Your task to perform on an android device: show emergency info Image 0: 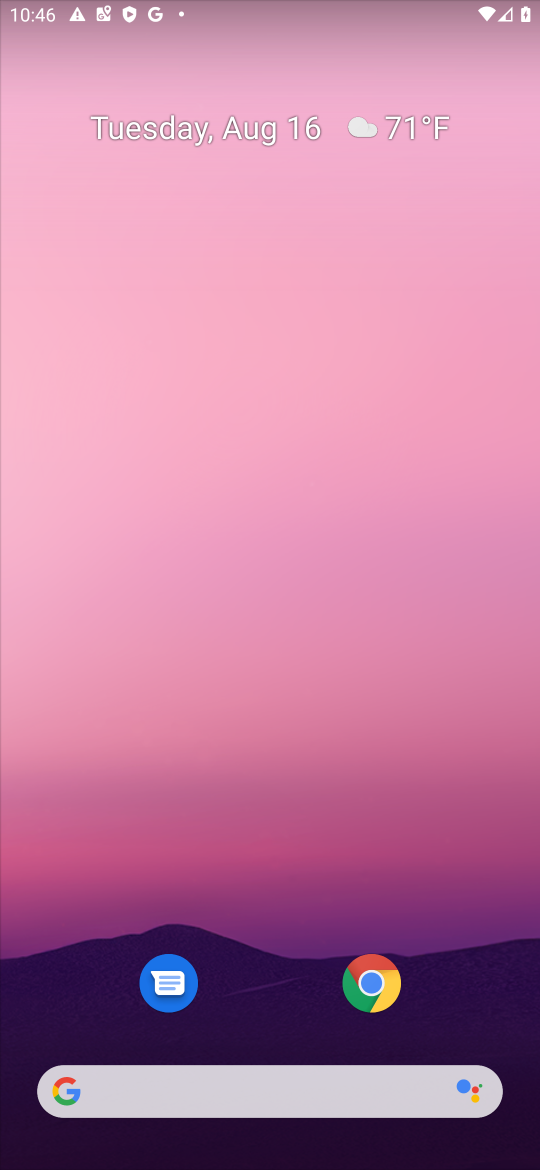
Step 0: drag from (303, 1080) to (359, 178)
Your task to perform on an android device: show emergency info Image 1: 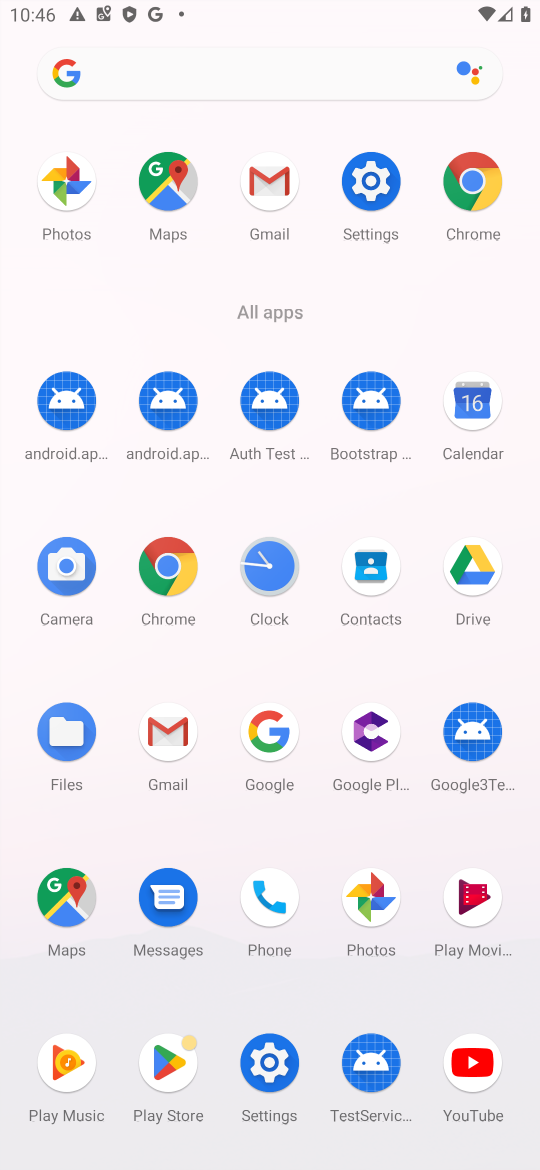
Step 1: click (265, 1070)
Your task to perform on an android device: show emergency info Image 2: 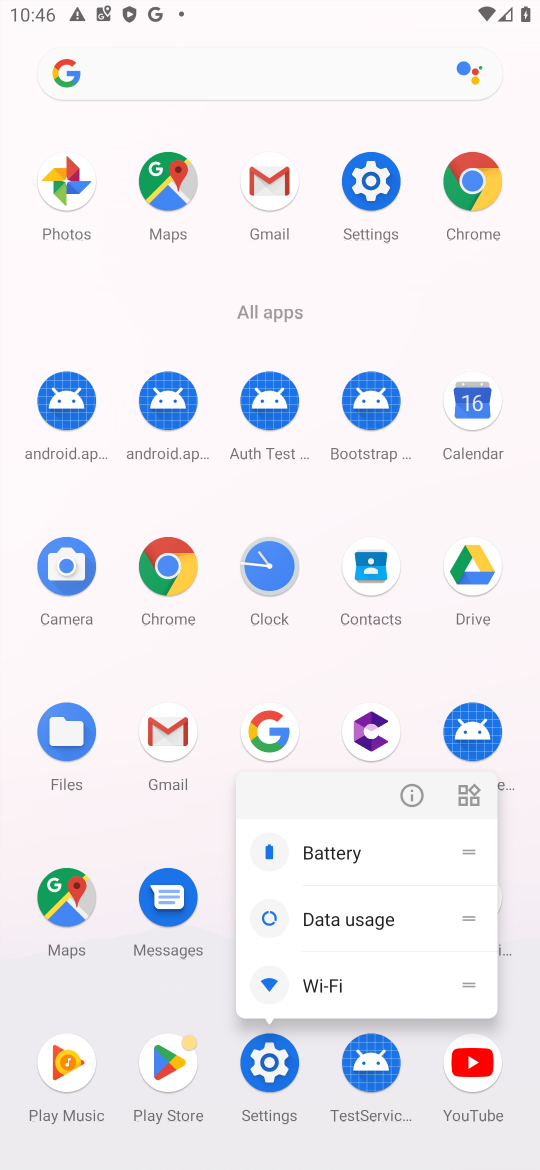
Step 2: click (280, 1065)
Your task to perform on an android device: show emergency info Image 3: 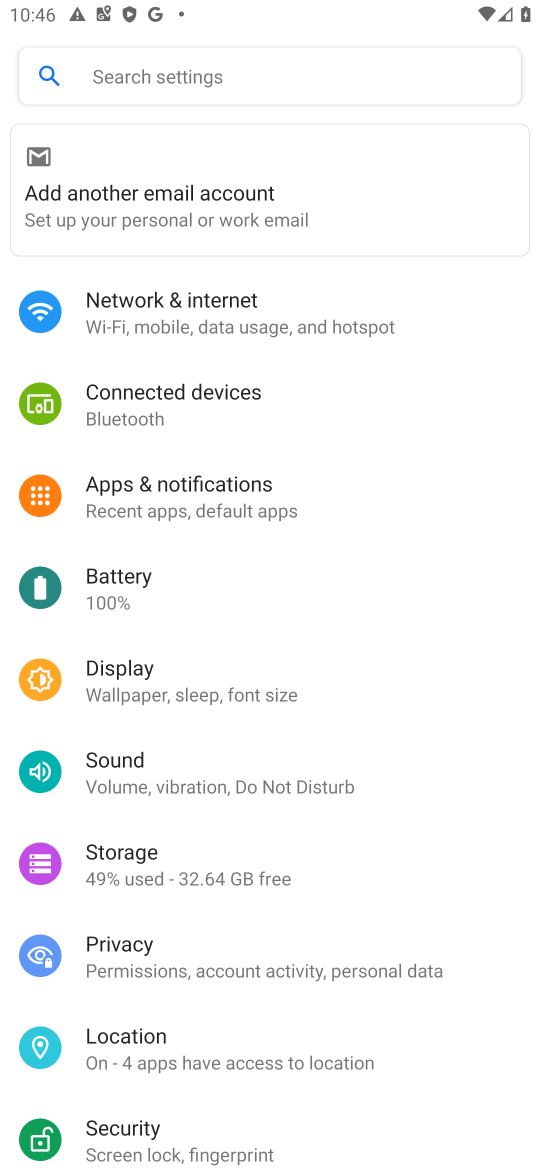
Step 3: drag from (297, 973) to (0, 817)
Your task to perform on an android device: show emergency info Image 4: 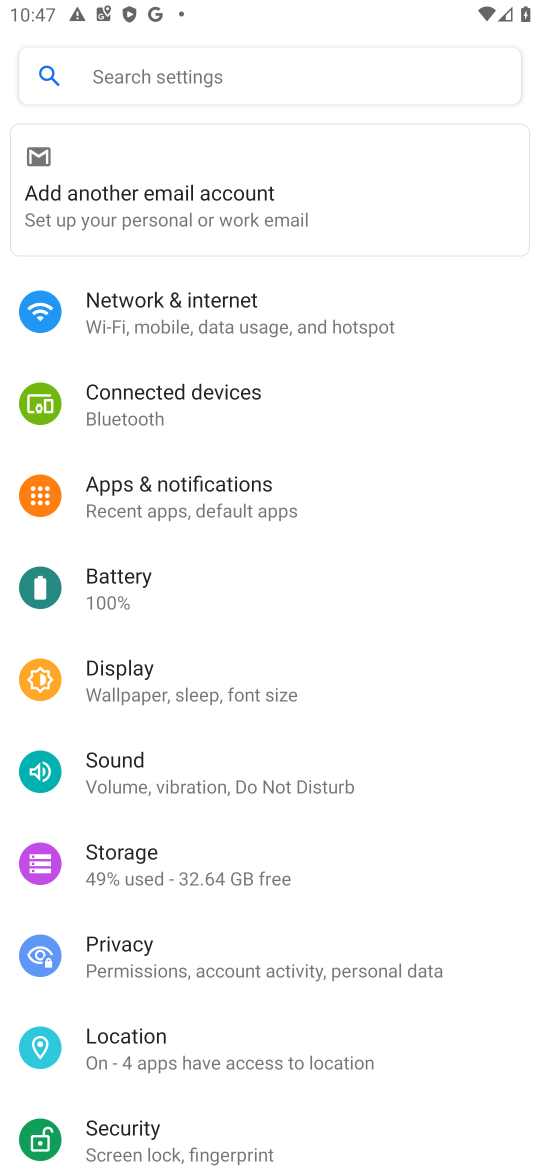
Step 4: drag from (142, 1093) to (33, 469)
Your task to perform on an android device: show emergency info Image 5: 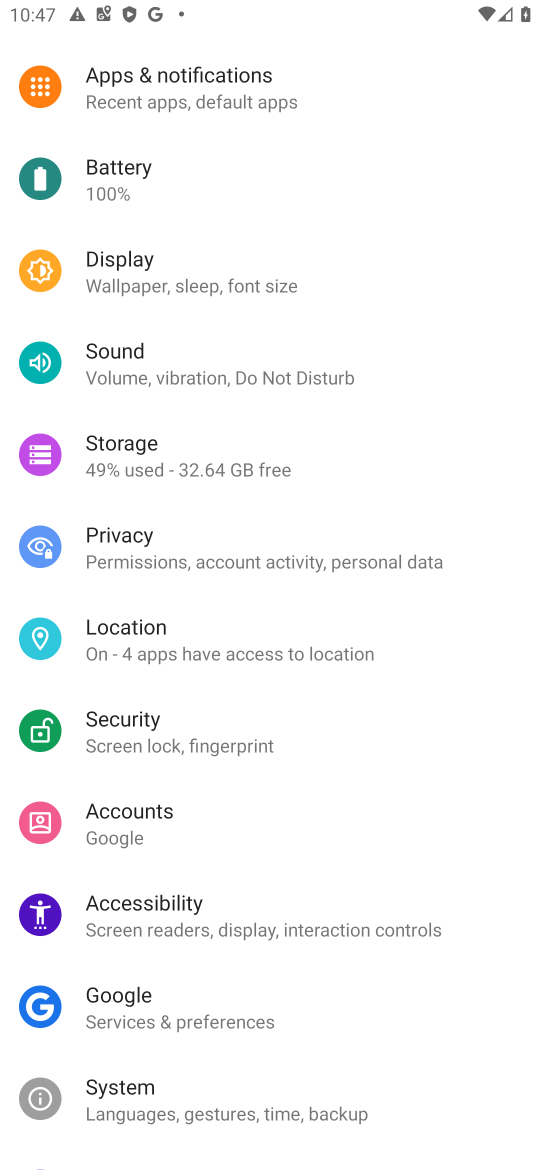
Step 5: drag from (216, 1112) to (209, 72)
Your task to perform on an android device: show emergency info Image 6: 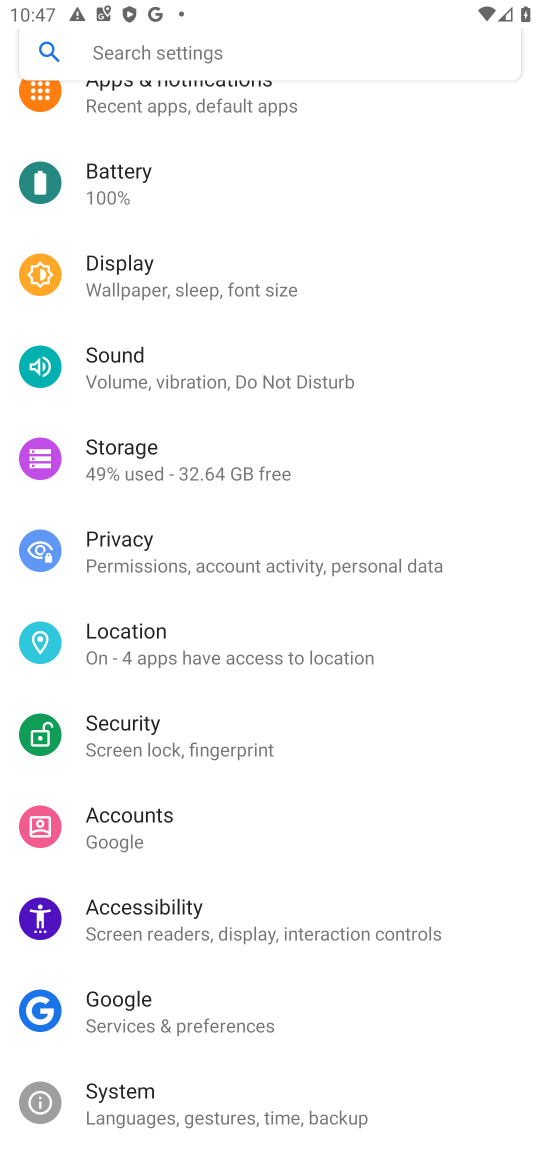
Step 6: click (200, 1151)
Your task to perform on an android device: show emergency info Image 7: 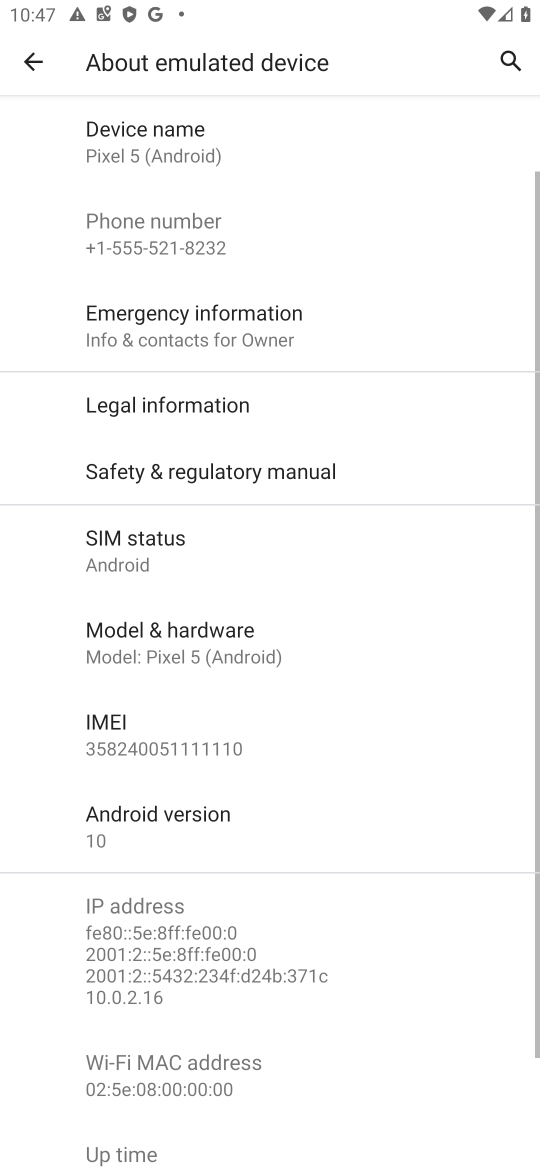
Step 7: click (222, 332)
Your task to perform on an android device: show emergency info Image 8: 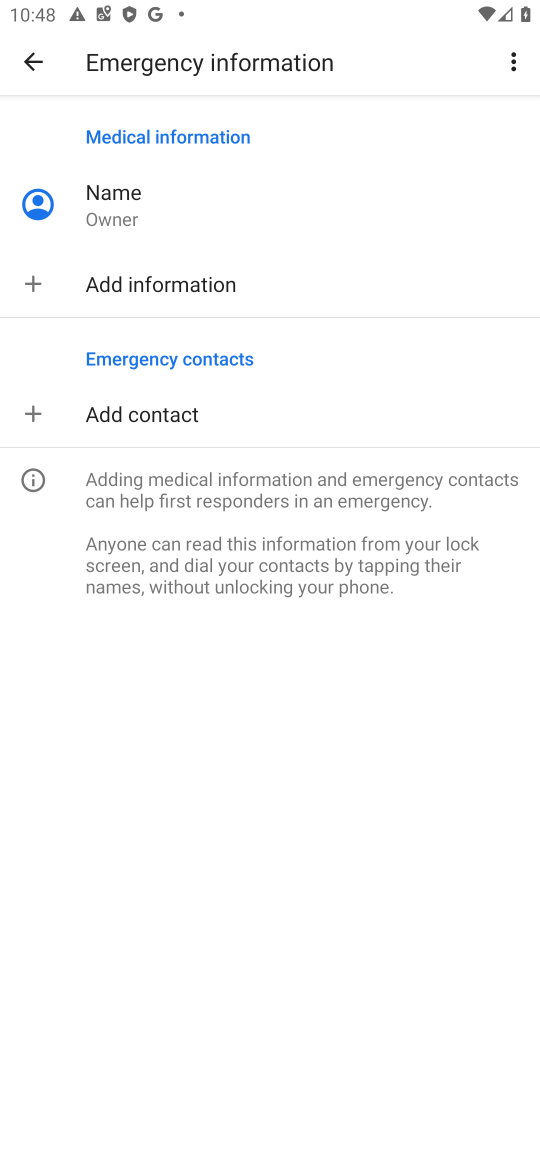
Step 8: task complete